Your task to perform on an android device: Show me popular games on the Play Store Image 0: 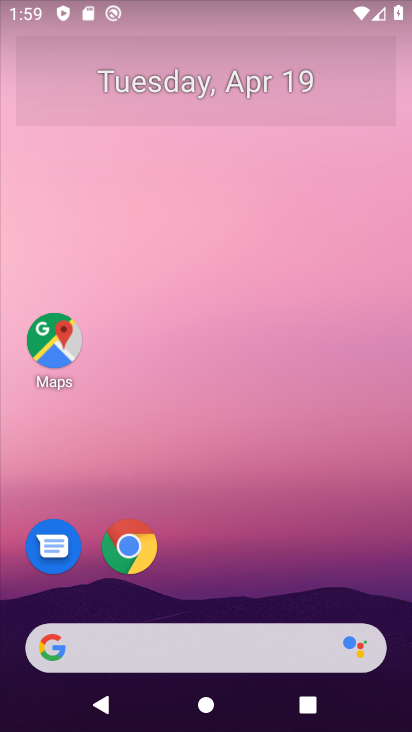
Step 0: drag from (239, 649) to (226, 215)
Your task to perform on an android device: Show me popular games on the Play Store Image 1: 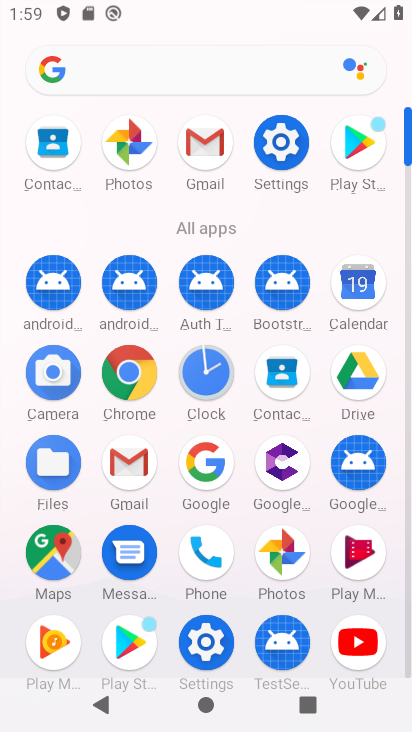
Step 1: click (140, 644)
Your task to perform on an android device: Show me popular games on the Play Store Image 2: 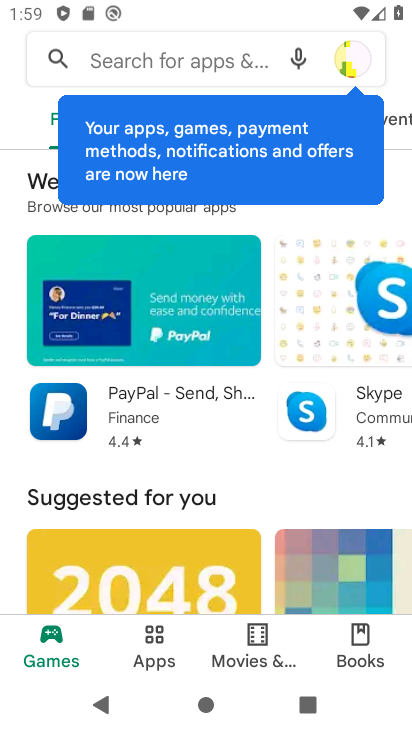
Step 2: drag from (184, 492) to (141, 41)
Your task to perform on an android device: Show me popular games on the Play Store Image 3: 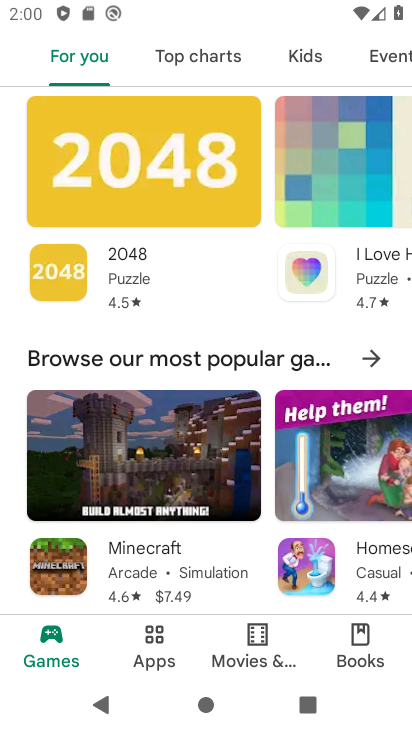
Step 3: click (380, 357)
Your task to perform on an android device: Show me popular games on the Play Store Image 4: 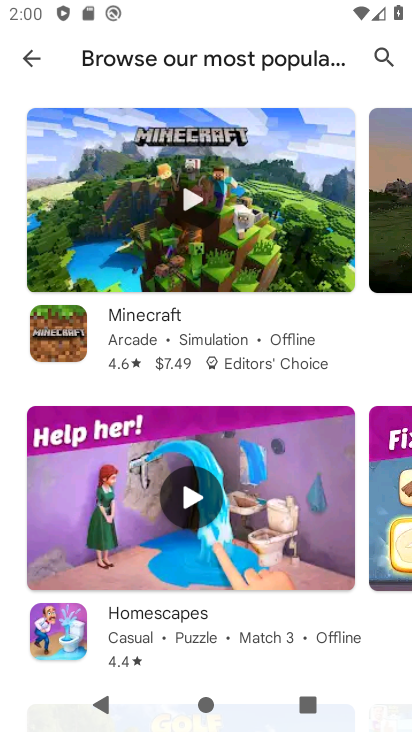
Step 4: task complete